Your task to perform on an android device: open sync settings in chrome Image 0: 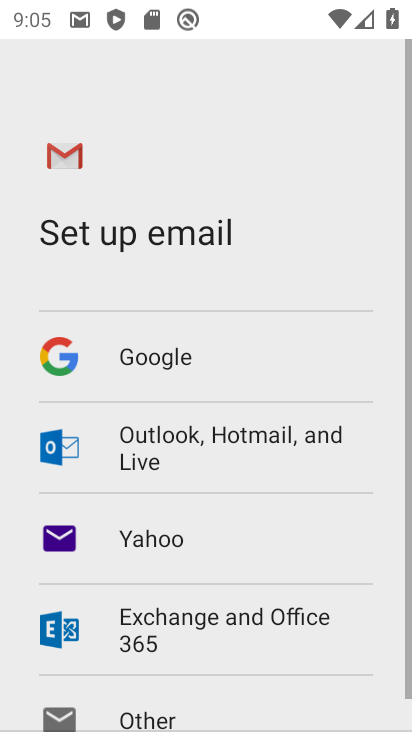
Step 0: press home button
Your task to perform on an android device: open sync settings in chrome Image 1: 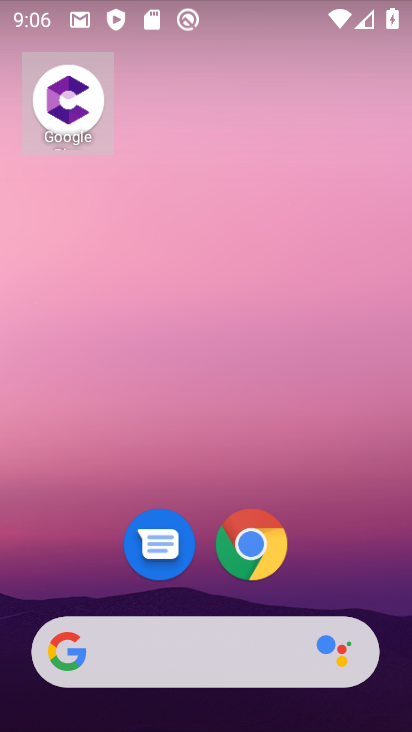
Step 1: drag from (339, 557) to (316, 188)
Your task to perform on an android device: open sync settings in chrome Image 2: 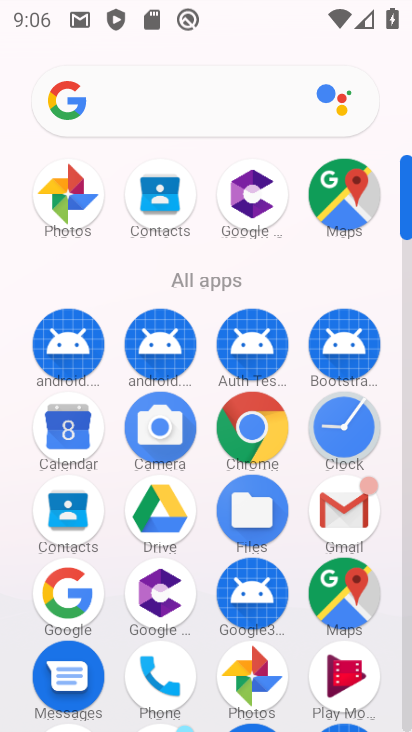
Step 2: click (255, 431)
Your task to perform on an android device: open sync settings in chrome Image 3: 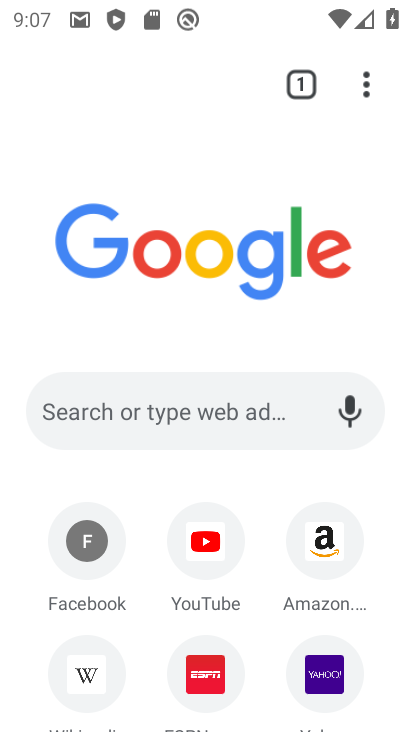
Step 3: click (377, 96)
Your task to perform on an android device: open sync settings in chrome Image 4: 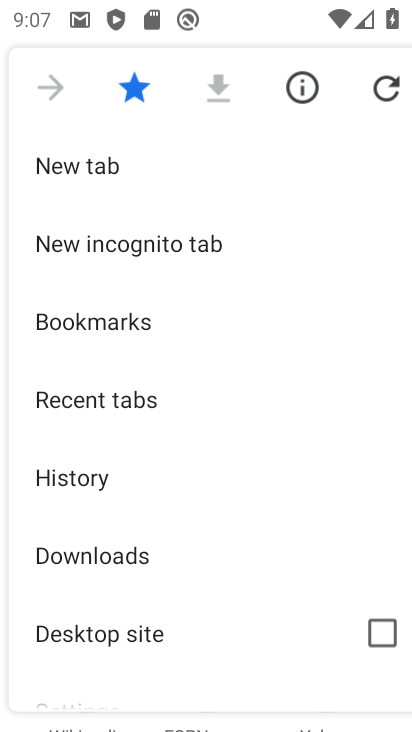
Step 4: drag from (129, 595) to (132, 316)
Your task to perform on an android device: open sync settings in chrome Image 5: 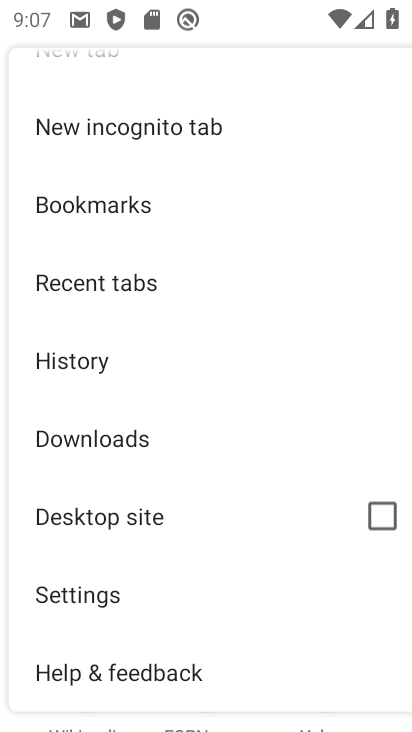
Step 5: click (145, 594)
Your task to perform on an android device: open sync settings in chrome Image 6: 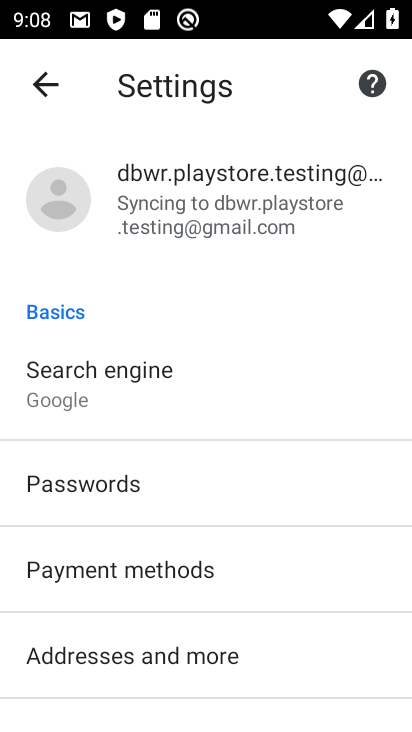
Step 6: click (240, 248)
Your task to perform on an android device: open sync settings in chrome Image 7: 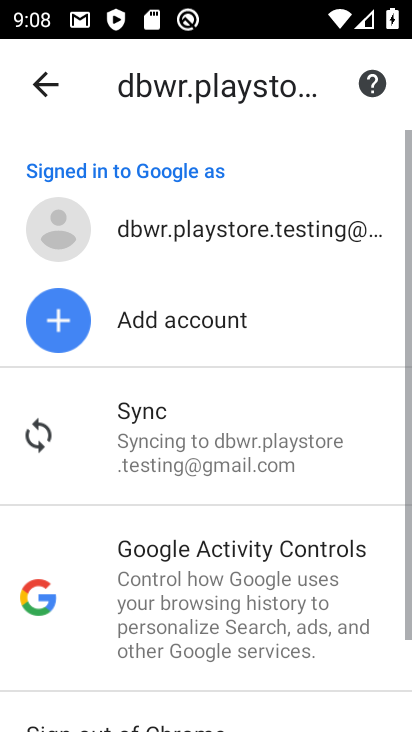
Step 7: task complete